Your task to perform on an android device: delete the emails in spam in the gmail app Image 0: 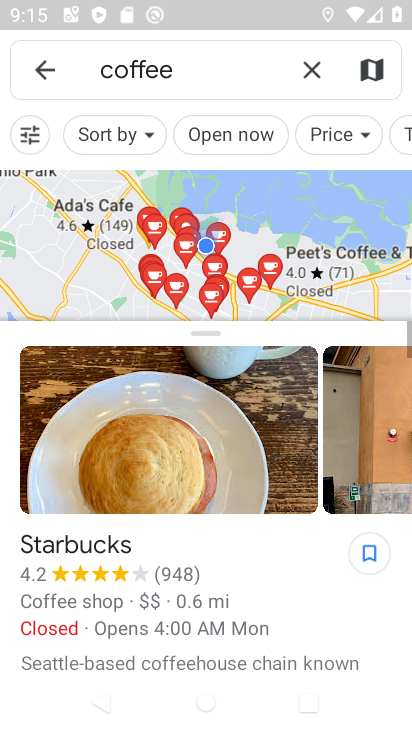
Step 0: press home button
Your task to perform on an android device: delete the emails in spam in the gmail app Image 1: 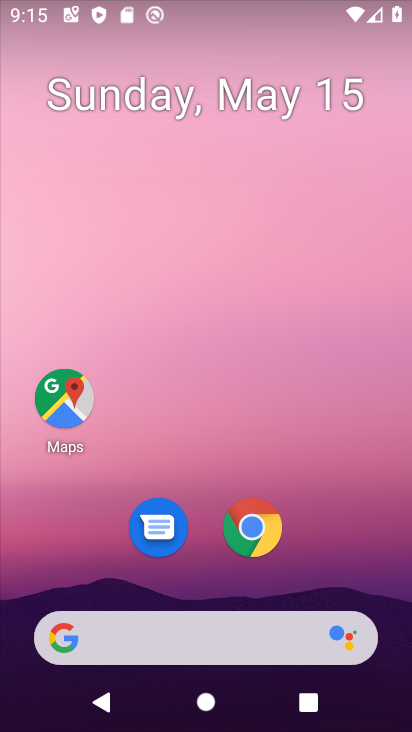
Step 1: drag from (305, 483) to (283, 227)
Your task to perform on an android device: delete the emails in spam in the gmail app Image 2: 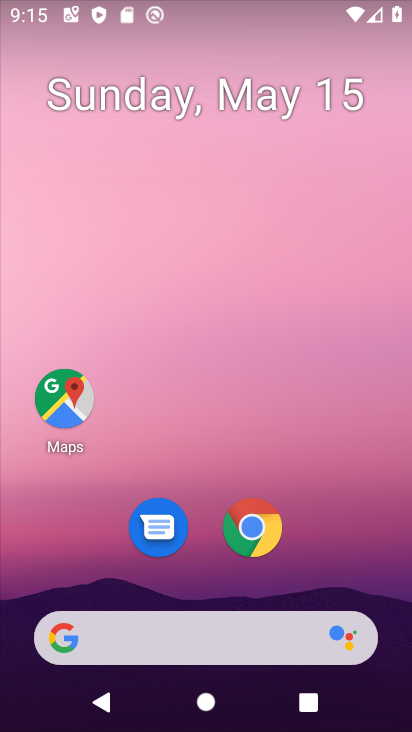
Step 2: drag from (399, 592) to (293, 254)
Your task to perform on an android device: delete the emails in spam in the gmail app Image 3: 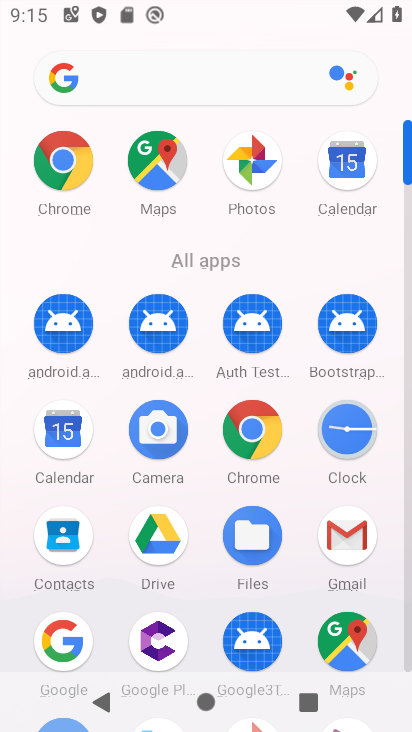
Step 3: click (358, 535)
Your task to perform on an android device: delete the emails in spam in the gmail app Image 4: 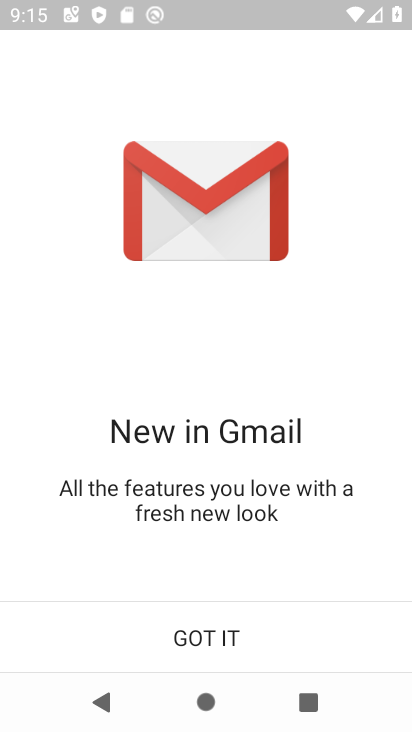
Step 4: click (248, 632)
Your task to perform on an android device: delete the emails in spam in the gmail app Image 5: 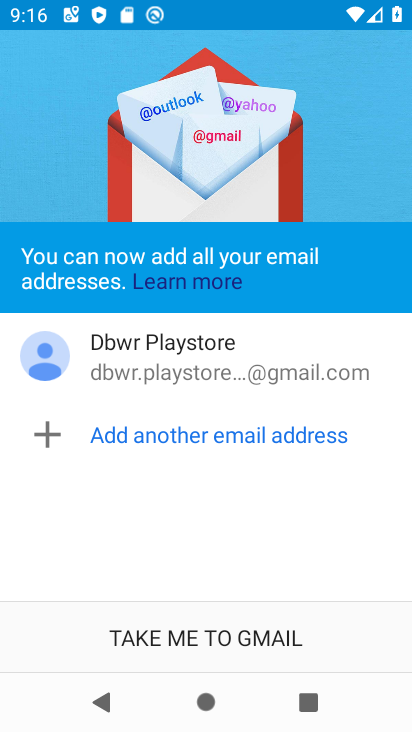
Step 5: click (270, 619)
Your task to perform on an android device: delete the emails in spam in the gmail app Image 6: 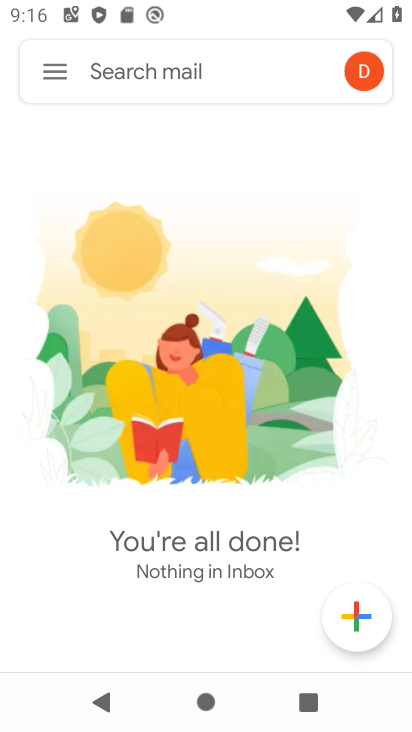
Step 6: click (61, 80)
Your task to perform on an android device: delete the emails in spam in the gmail app Image 7: 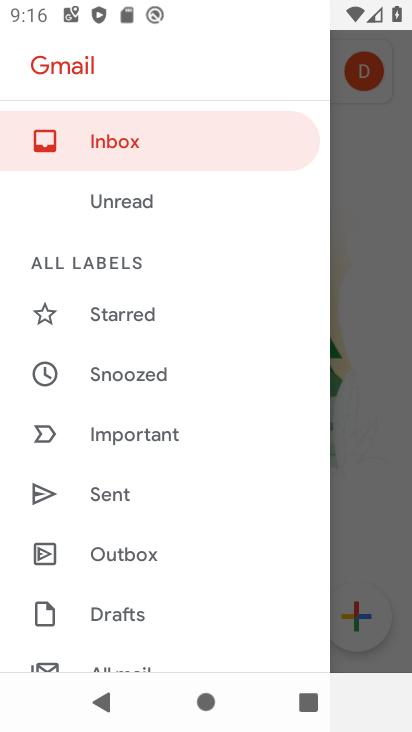
Step 7: drag from (202, 507) to (258, 132)
Your task to perform on an android device: delete the emails in spam in the gmail app Image 8: 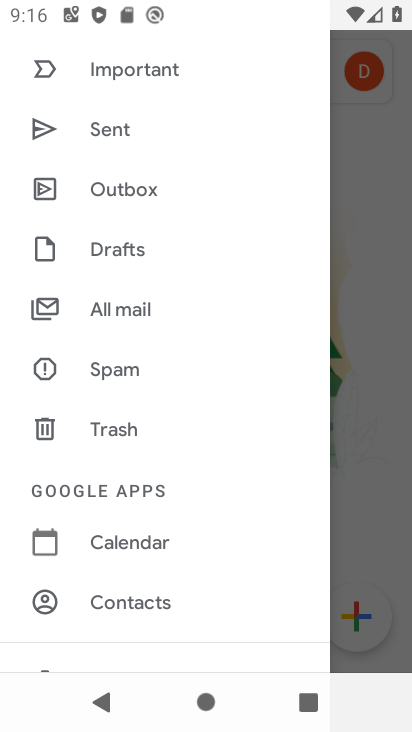
Step 8: click (188, 314)
Your task to perform on an android device: delete the emails in spam in the gmail app Image 9: 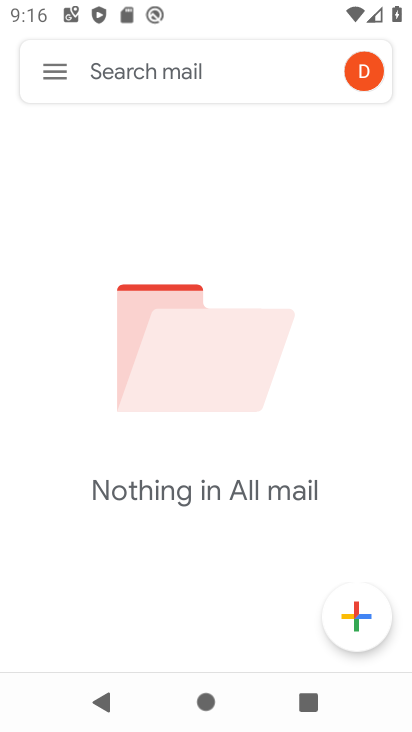
Step 9: task complete